Your task to perform on an android device: Open internet settings Image 0: 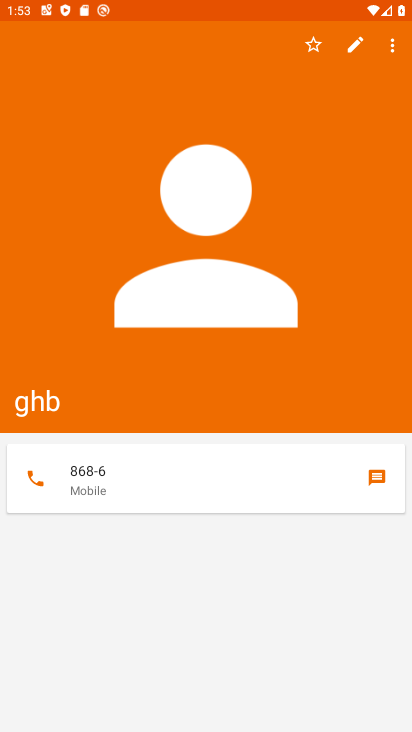
Step 0: press back button
Your task to perform on an android device: Open internet settings Image 1: 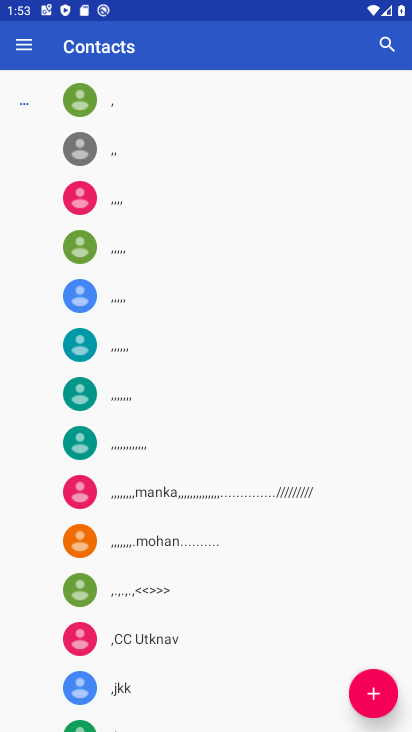
Step 1: press back button
Your task to perform on an android device: Open internet settings Image 2: 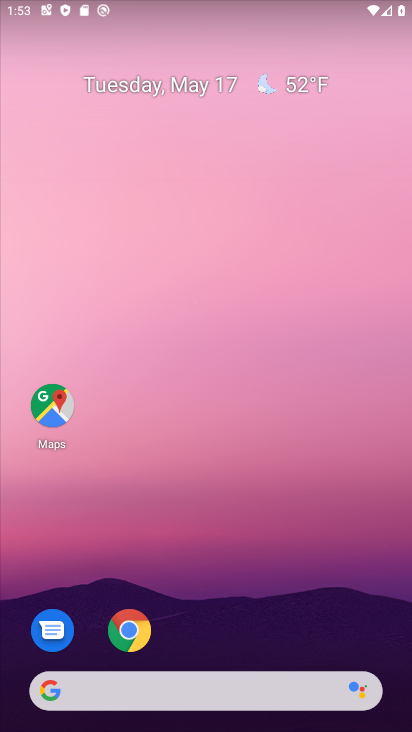
Step 2: drag from (240, 577) to (307, 70)
Your task to perform on an android device: Open internet settings Image 3: 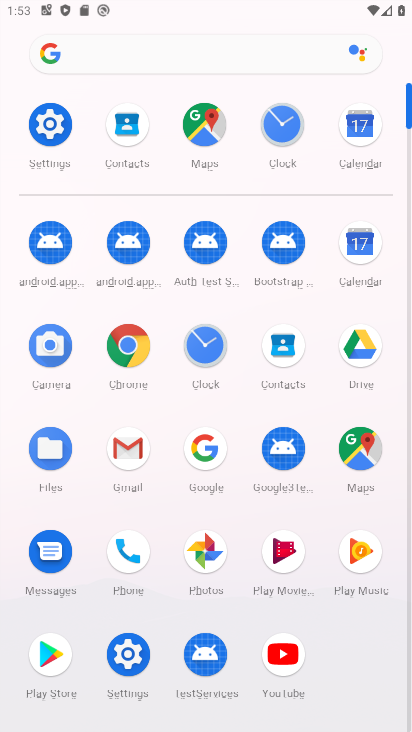
Step 3: click (45, 131)
Your task to perform on an android device: Open internet settings Image 4: 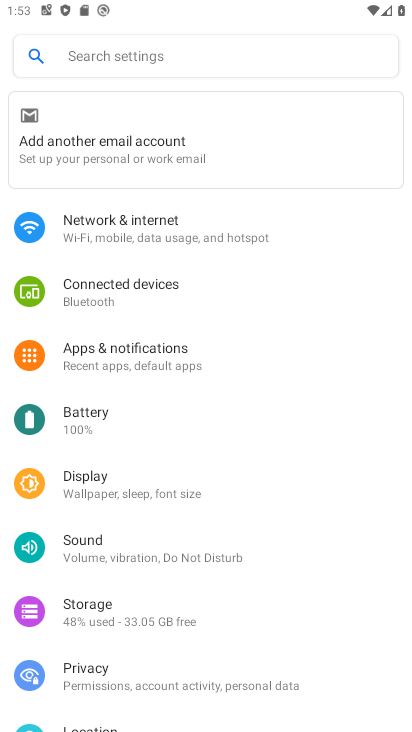
Step 4: click (150, 227)
Your task to perform on an android device: Open internet settings Image 5: 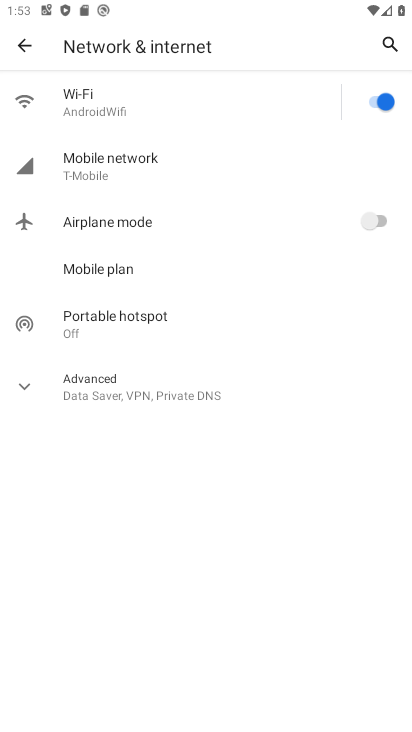
Step 5: task complete